Your task to perform on an android device: open a bookmark in the chrome app Image 0: 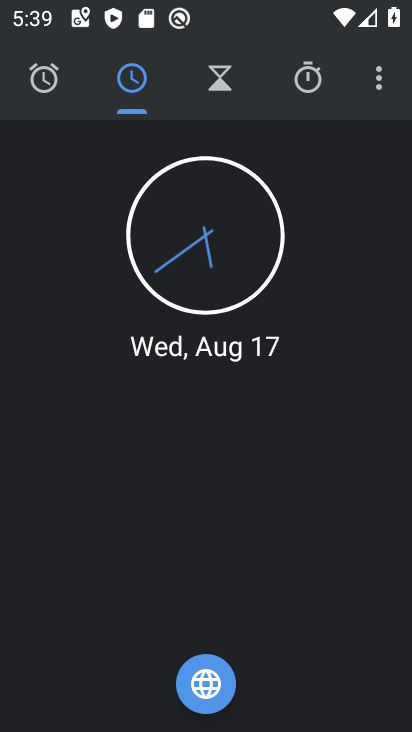
Step 0: press home button
Your task to perform on an android device: open a bookmark in the chrome app Image 1: 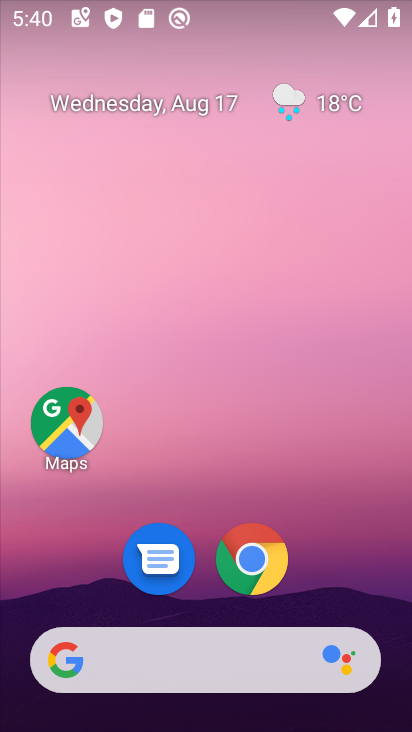
Step 1: click (255, 551)
Your task to perform on an android device: open a bookmark in the chrome app Image 2: 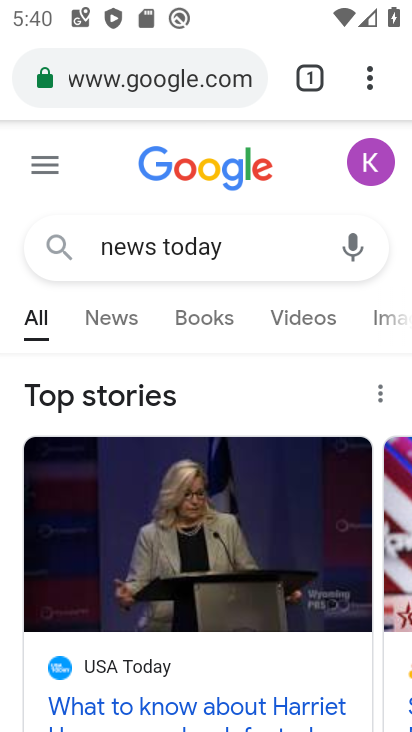
Step 2: drag from (377, 73) to (274, 307)
Your task to perform on an android device: open a bookmark in the chrome app Image 3: 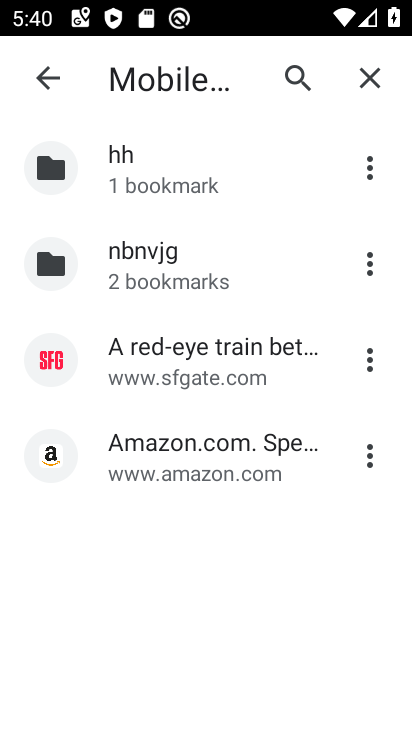
Step 3: click (218, 445)
Your task to perform on an android device: open a bookmark in the chrome app Image 4: 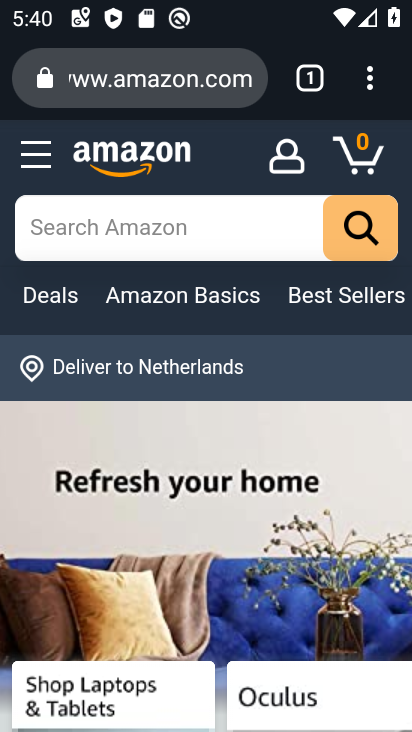
Step 4: task complete